Your task to perform on an android device: turn off priority inbox in the gmail app Image 0: 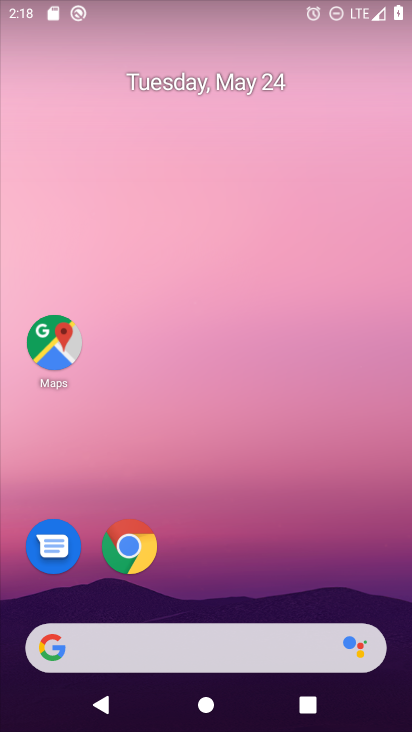
Step 0: drag from (251, 603) to (358, 156)
Your task to perform on an android device: turn off priority inbox in the gmail app Image 1: 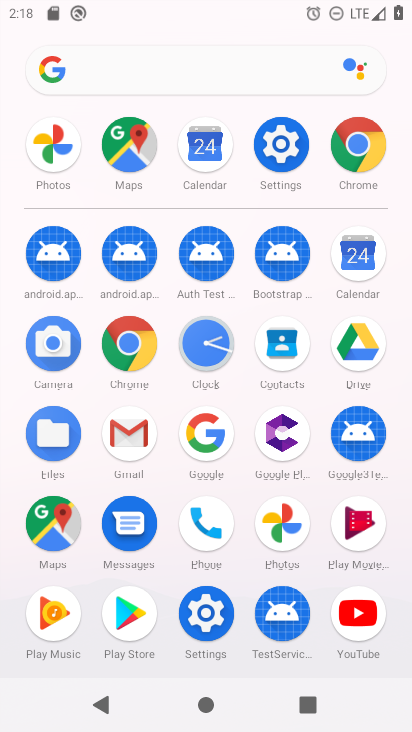
Step 1: click (128, 445)
Your task to perform on an android device: turn off priority inbox in the gmail app Image 2: 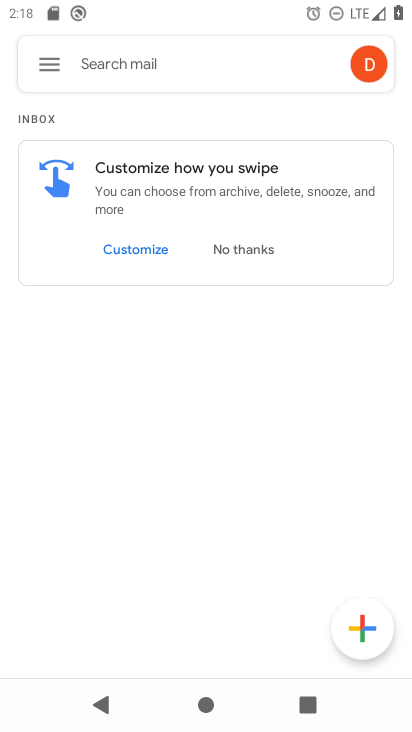
Step 2: click (50, 70)
Your task to perform on an android device: turn off priority inbox in the gmail app Image 3: 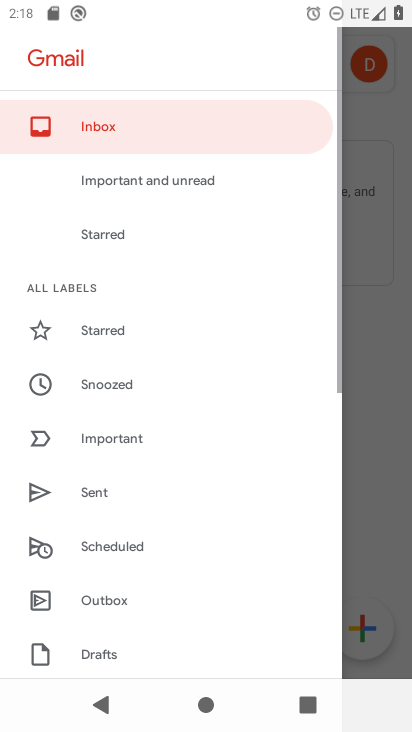
Step 3: drag from (168, 646) to (260, 188)
Your task to perform on an android device: turn off priority inbox in the gmail app Image 4: 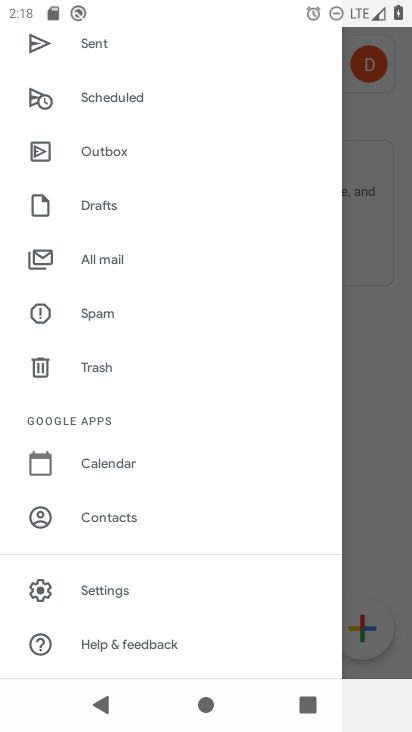
Step 4: click (107, 594)
Your task to perform on an android device: turn off priority inbox in the gmail app Image 5: 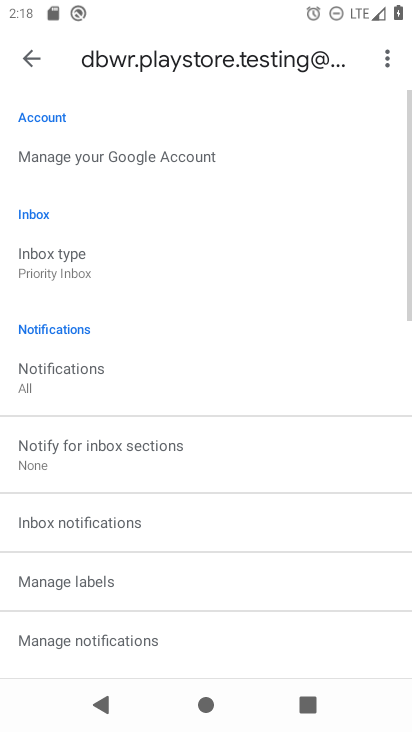
Step 5: click (60, 265)
Your task to perform on an android device: turn off priority inbox in the gmail app Image 6: 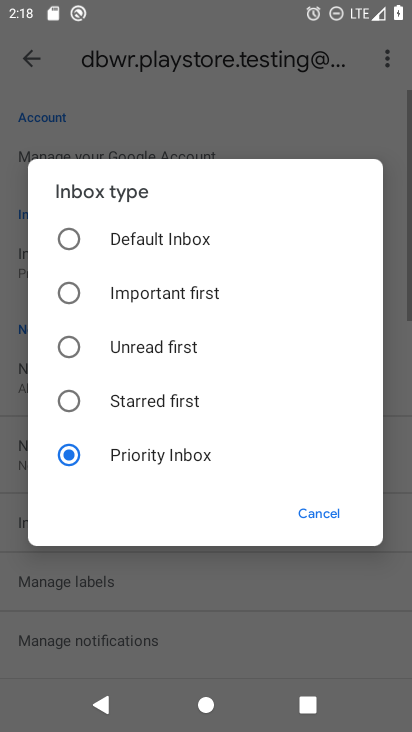
Step 6: click (123, 245)
Your task to perform on an android device: turn off priority inbox in the gmail app Image 7: 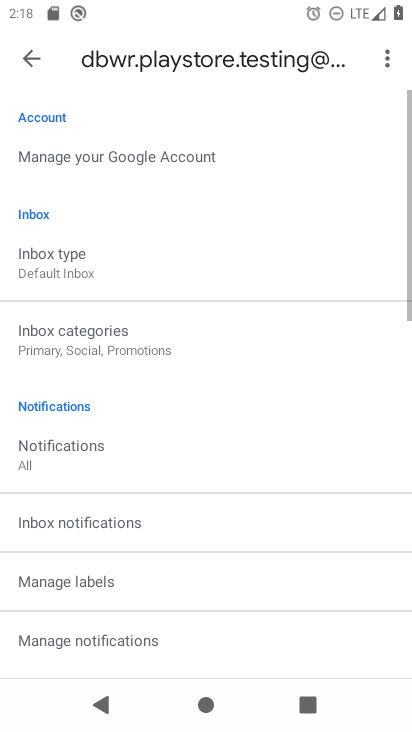
Step 7: task complete